Your task to perform on an android device: turn off priority inbox in the gmail app Image 0: 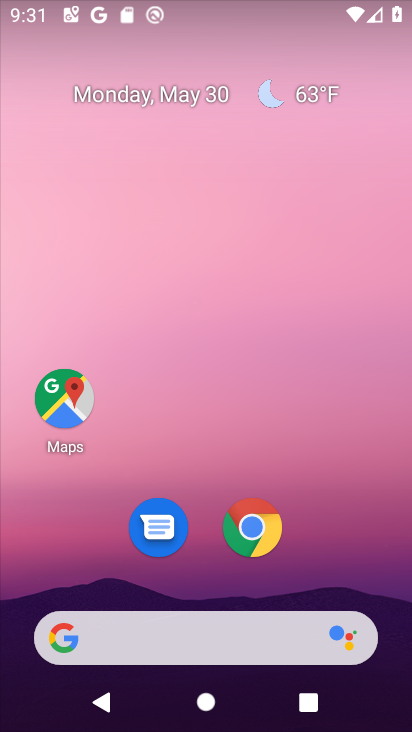
Step 0: drag from (325, 474) to (336, 202)
Your task to perform on an android device: turn off priority inbox in the gmail app Image 1: 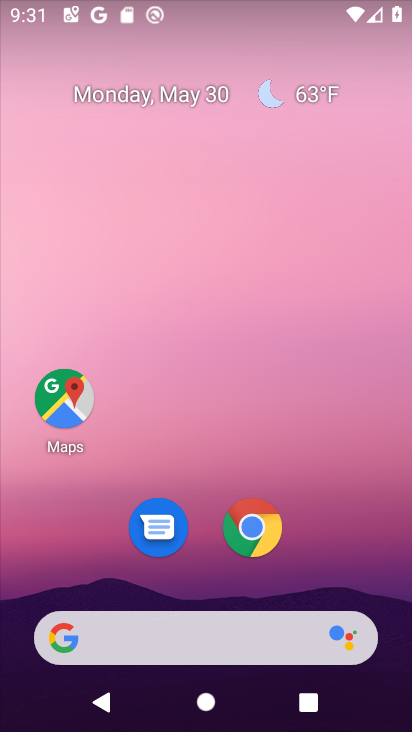
Step 1: drag from (333, 573) to (324, 137)
Your task to perform on an android device: turn off priority inbox in the gmail app Image 2: 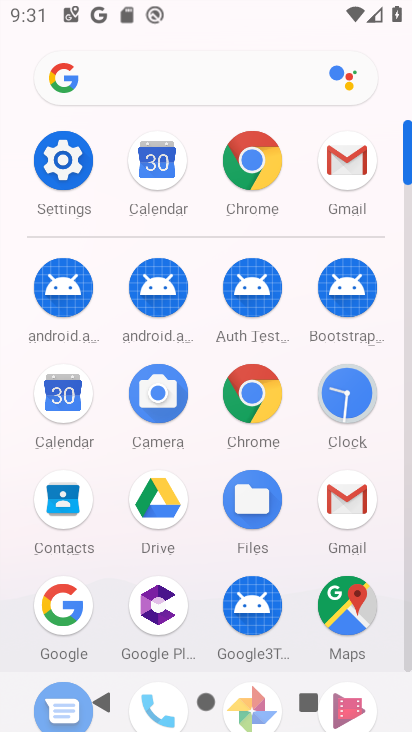
Step 2: click (348, 498)
Your task to perform on an android device: turn off priority inbox in the gmail app Image 3: 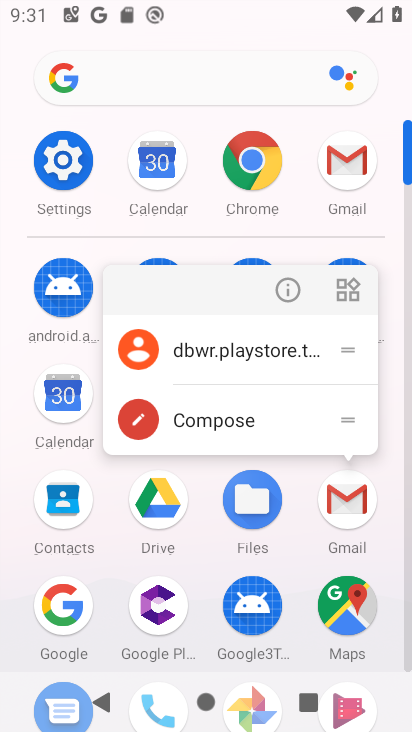
Step 3: click (338, 475)
Your task to perform on an android device: turn off priority inbox in the gmail app Image 4: 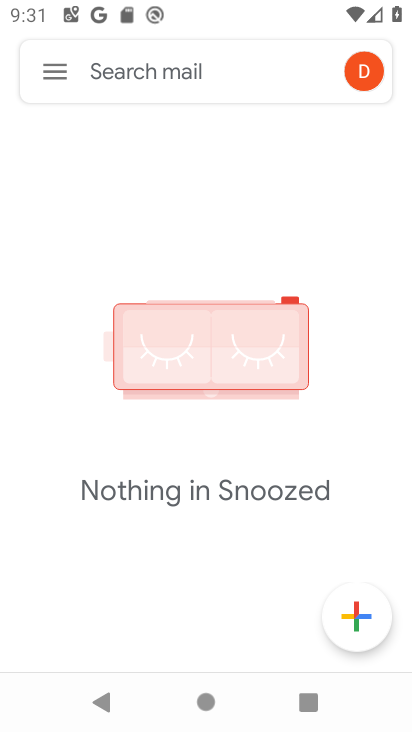
Step 4: click (55, 69)
Your task to perform on an android device: turn off priority inbox in the gmail app Image 5: 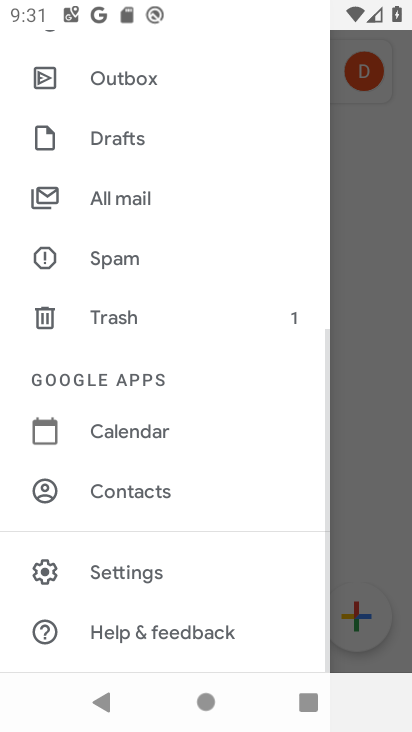
Step 5: click (166, 571)
Your task to perform on an android device: turn off priority inbox in the gmail app Image 6: 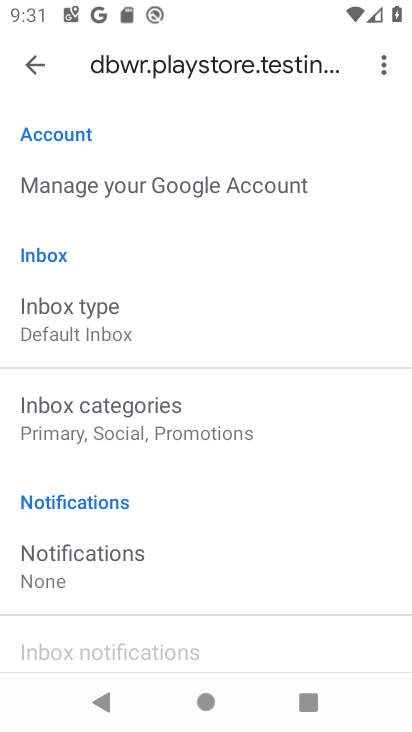
Step 6: click (124, 306)
Your task to perform on an android device: turn off priority inbox in the gmail app Image 7: 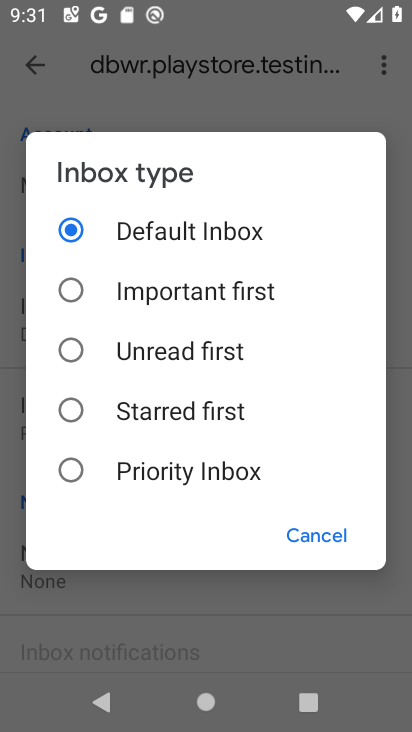
Step 7: click (163, 482)
Your task to perform on an android device: turn off priority inbox in the gmail app Image 8: 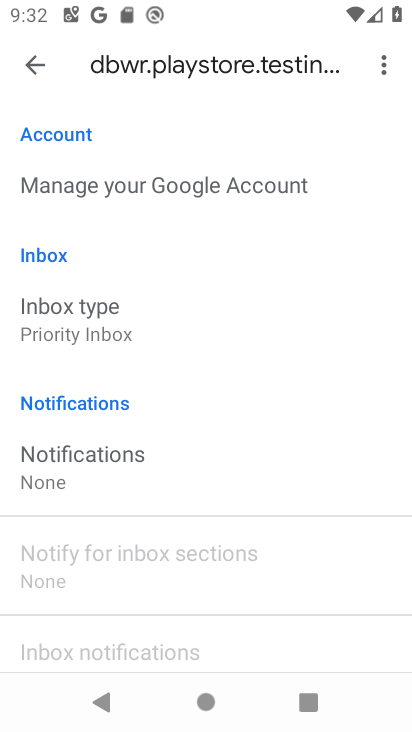
Step 8: click (149, 306)
Your task to perform on an android device: turn off priority inbox in the gmail app Image 9: 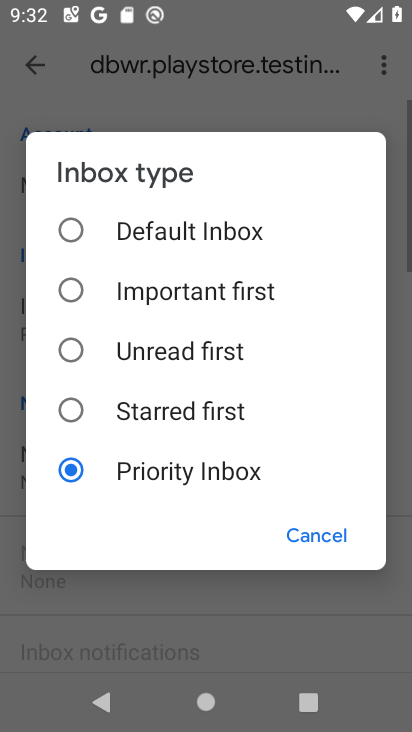
Step 9: click (98, 216)
Your task to perform on an android device: turn off priority inbox in the gmail app Image 10: 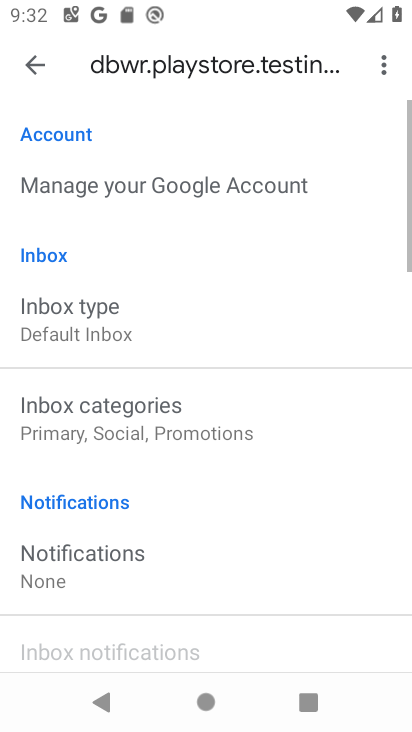
Step 10: task complete